Your task to perform on an android device: What's on my calendar today? Image 0: 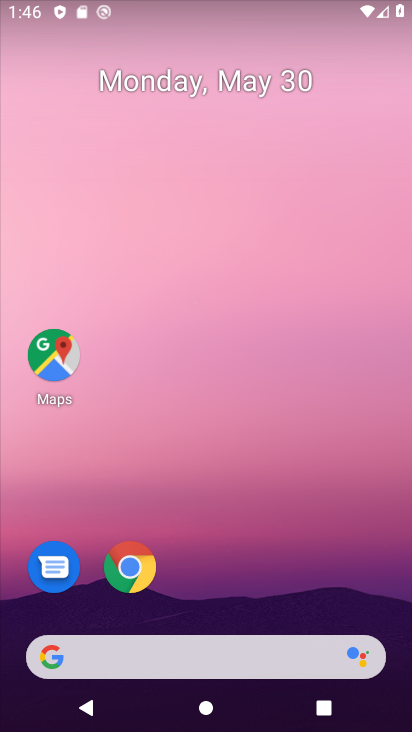
Step 0: drag from (270, 606) to (343, 84)
Your task to perform on an android device: What's on my calendar today? Image 1: 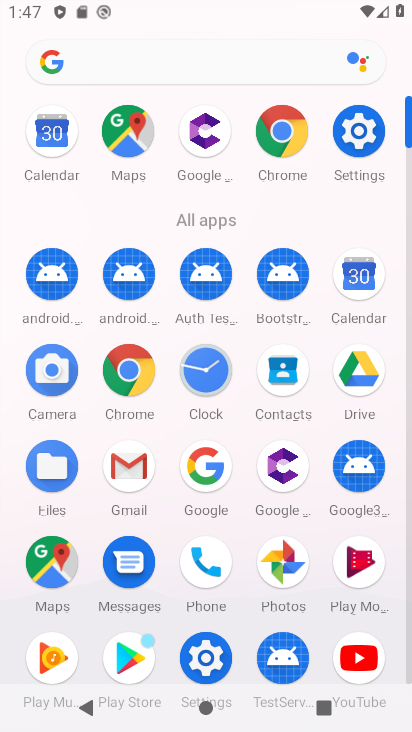
Step 1: click (367, 284)
Your task to perform on an android device: What's on my calendar today? Image 2: 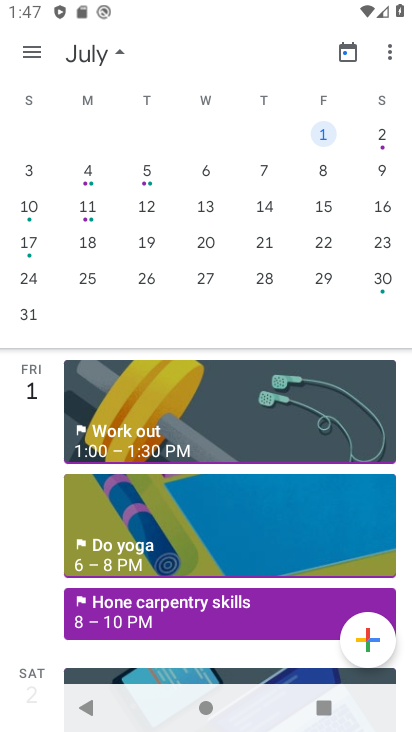
Step 2: drag from (82, 133) to (397, 157)
Your task to perform on an android device: What's on my calendar today? Image 3: 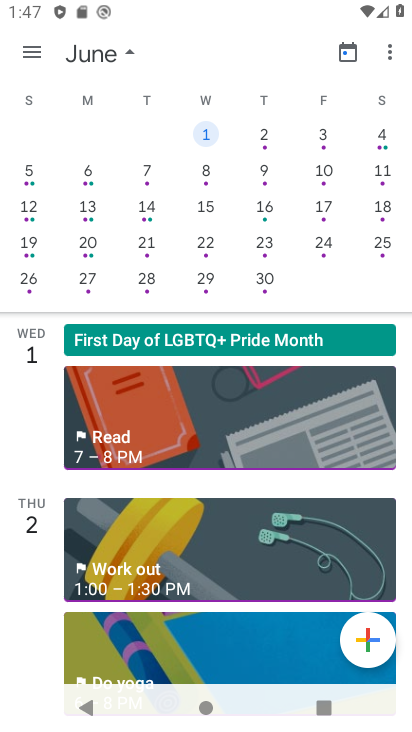
Step 3: drag from (114, 219) to (383, 249)
Your task to perform on an android device: What's on my calendar today? Image 4: 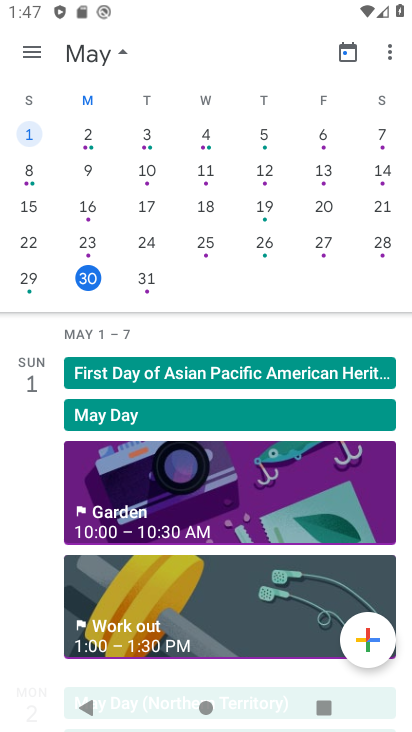
Step 4: click (79, 277)
Your task to perform on an android device: What's on my calendar today? Image 5: 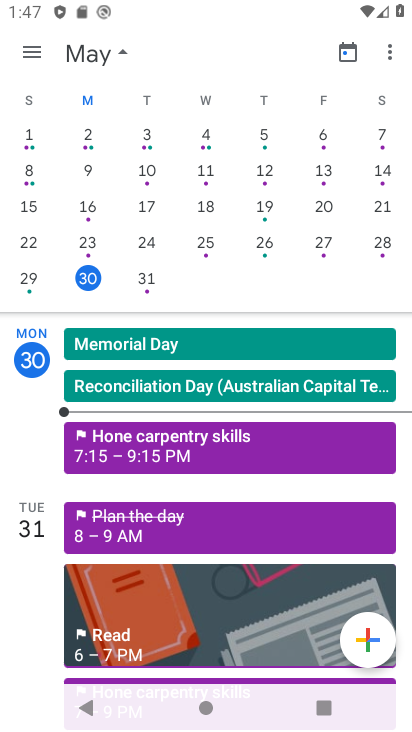
Step 5: click (113, 49)
Your task to perform on an android device: What's on my calendar today? Image 6: 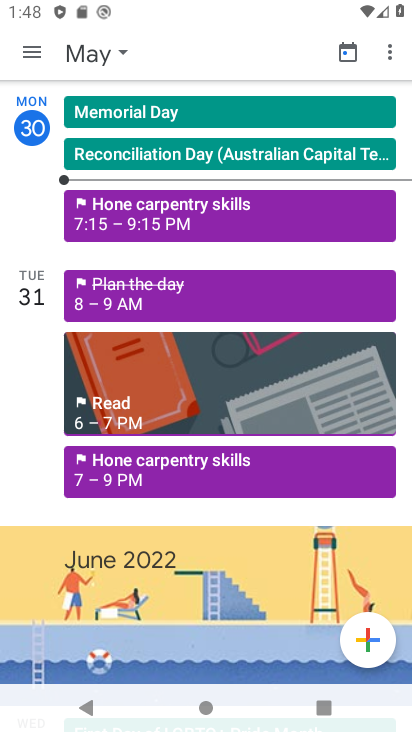
Step 6: task complete